Your task to perform on an android device: What's the weather? Image 0: 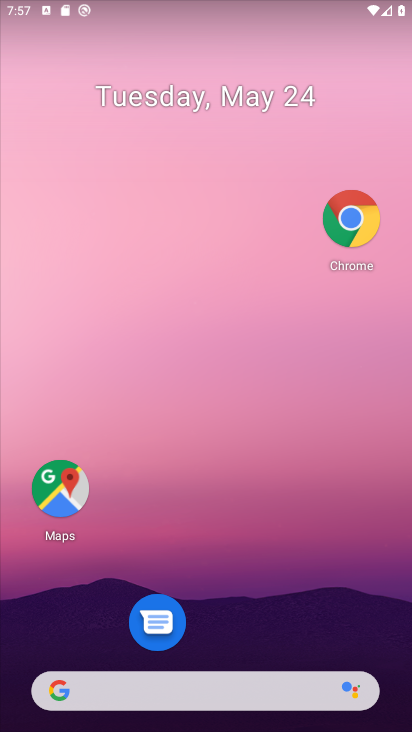
Step 0: drag from (270, 595) to (291, 132)
Your task to perform on an android device: What's the weather? Image 1: 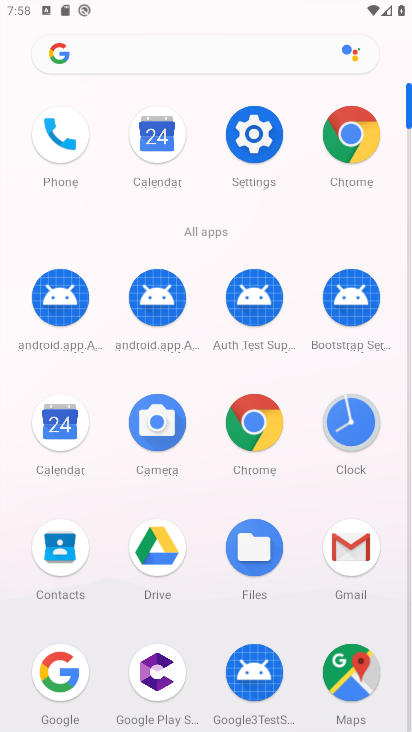
Step 1: click (123, 58)
Your task to perform on an android device: What's the weather? Image 2: 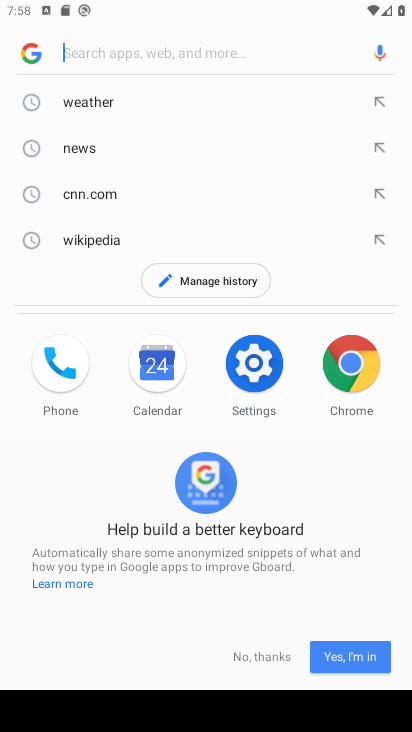
Step 2: click (269, 655)
Your task to perform on an android device: What's the weather? Image 3: 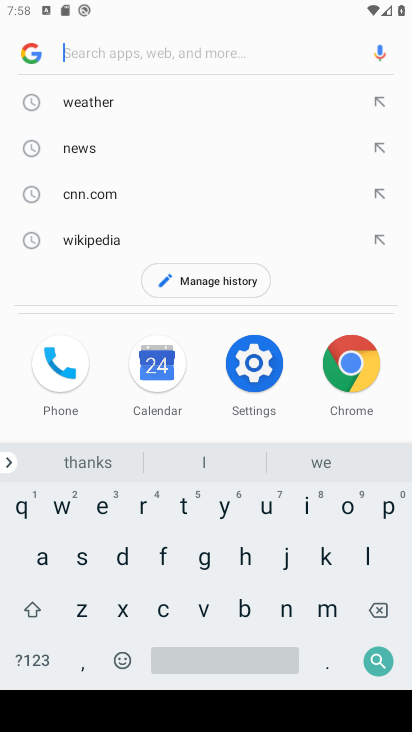
Step 3: click (138, 112)
Your task to perform on an android device: What's the weather? Image 4: 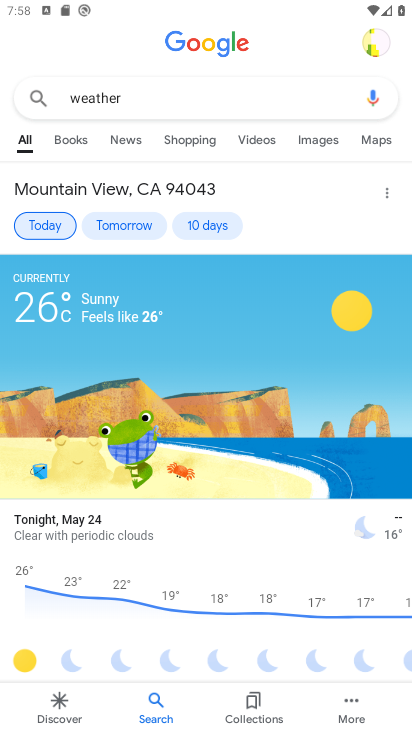
Step 4: task complete